Your task to perform on an android device: delete a single message in the gmail app Image 0: 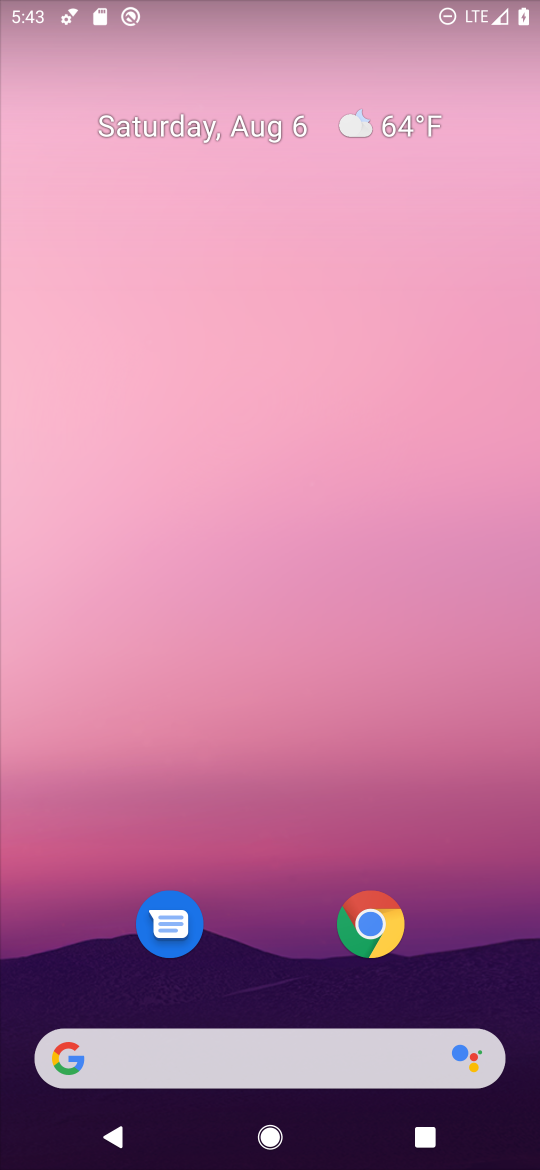
Step 0: drag from (285, 865) to (284, 234)
Your task to perform on an android device: delete a single message in the gmail app Image 1: 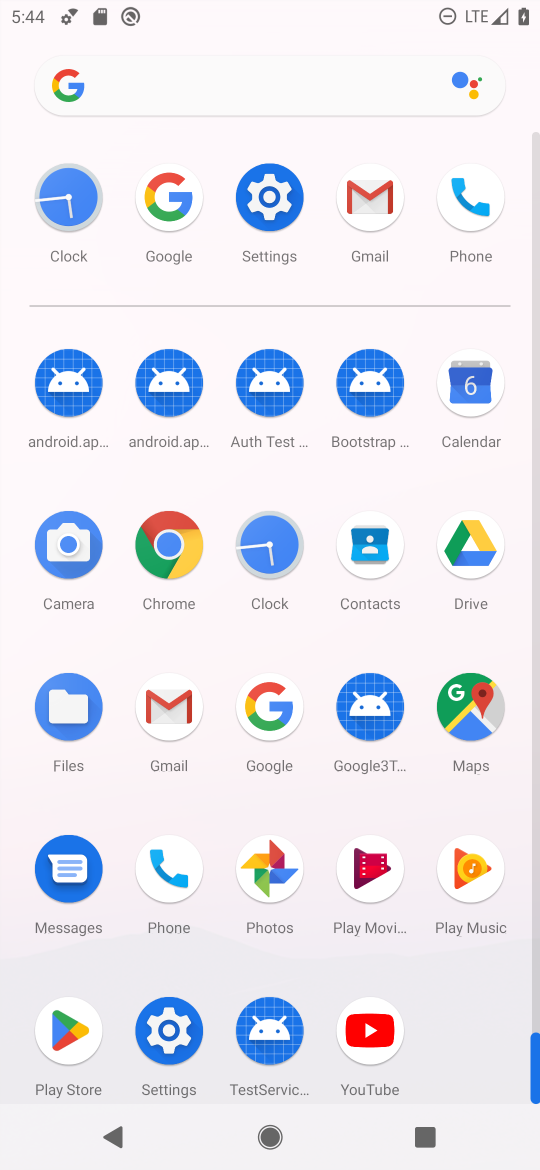
Step 1: click (367, 204)
Your task to perform on an android device: delete a single message in the gmail app Image 2: 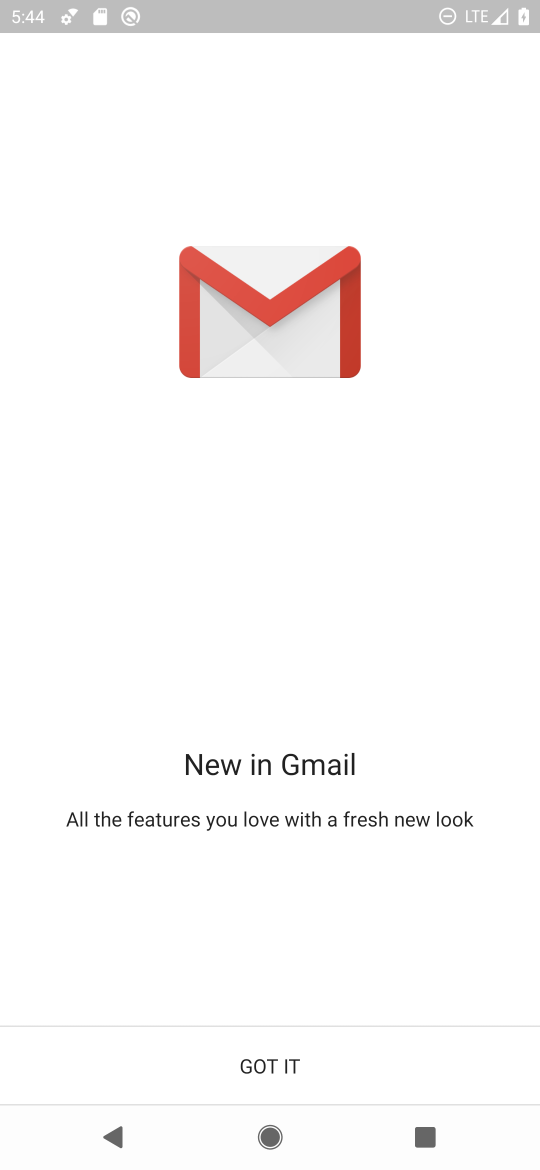
Step 2: click (259, 1057)
Your task to perform on an android device: delete a single message in the gmail app Image 3: 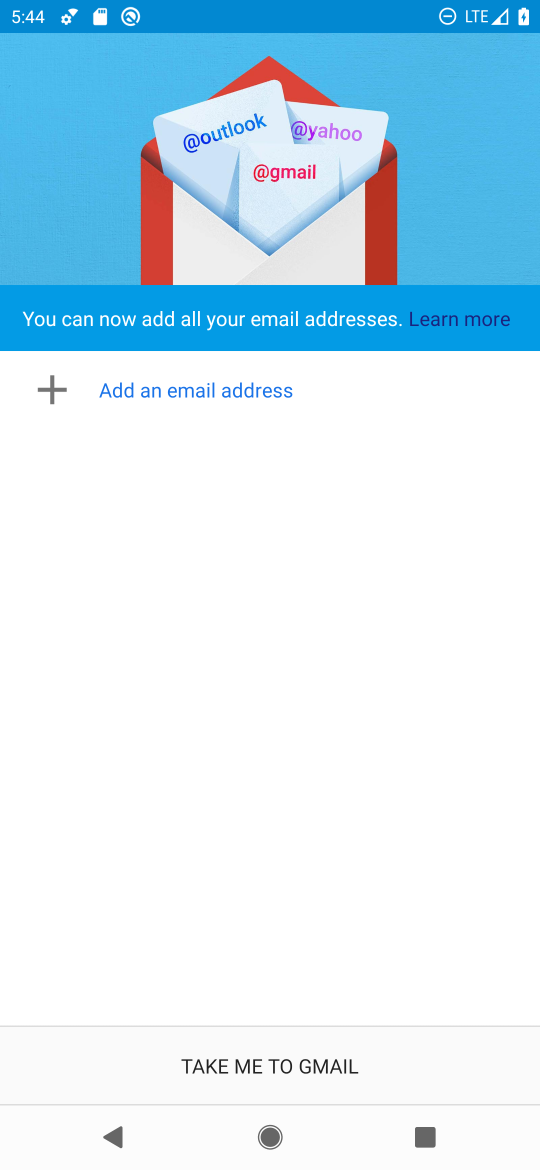
Step 3: click (259, 1057)
Your task to perform on an android device: delete a single message in the gmail app Image 4: 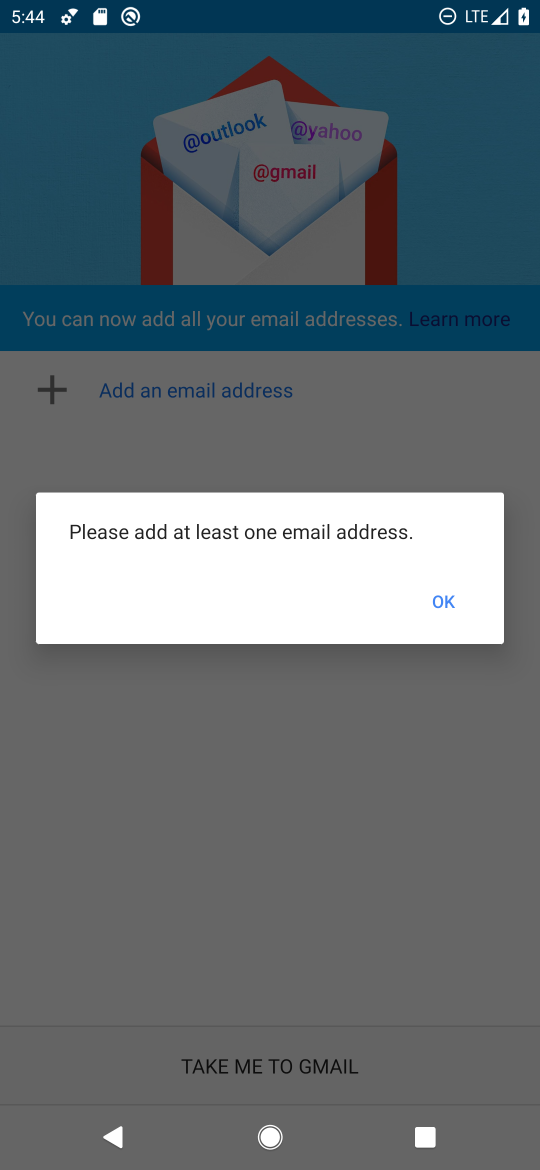
Step 4: click (429, 590)
Your task to perform on an android device: delete a single message in the gmail app Image 5: 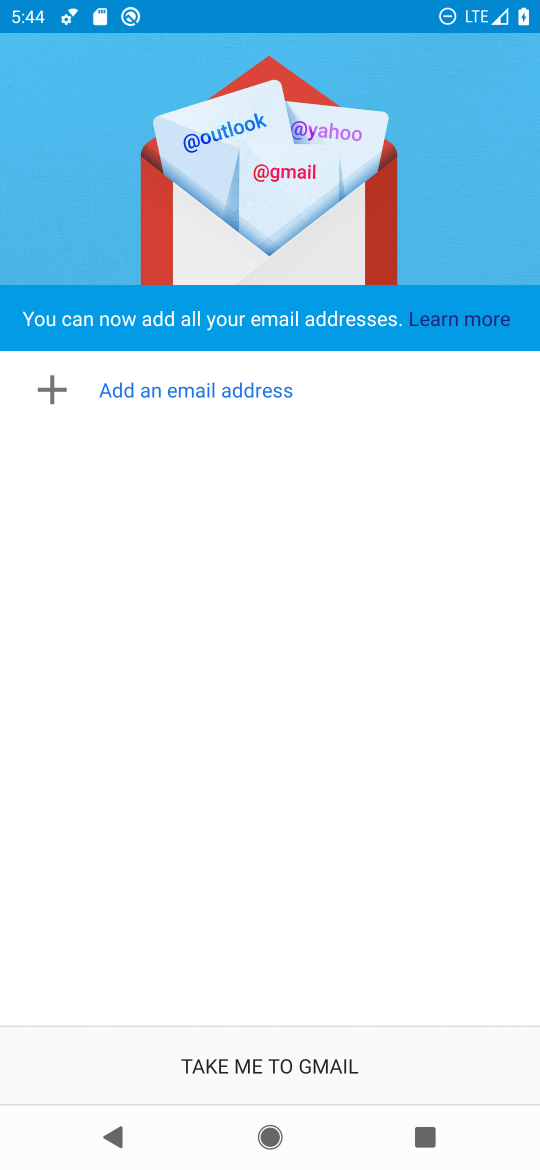
Step 5: task complete